Your task to perform on an android device: Set the phone to "Do not disturb". Image 0: 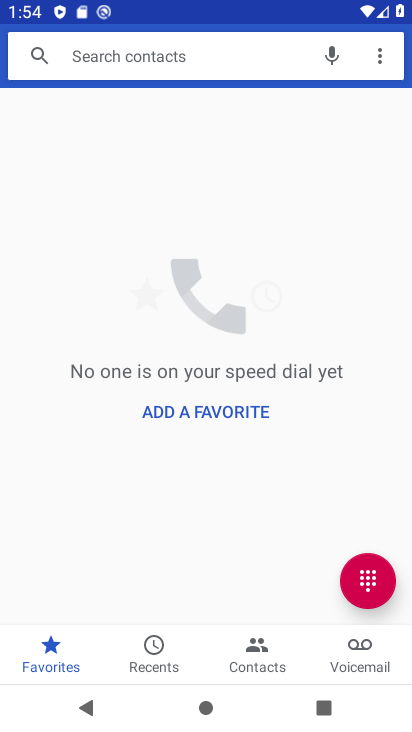
Step 0: press home button
Your task to perform on an android device: Set the phone to "Do not disturb". Image 1: 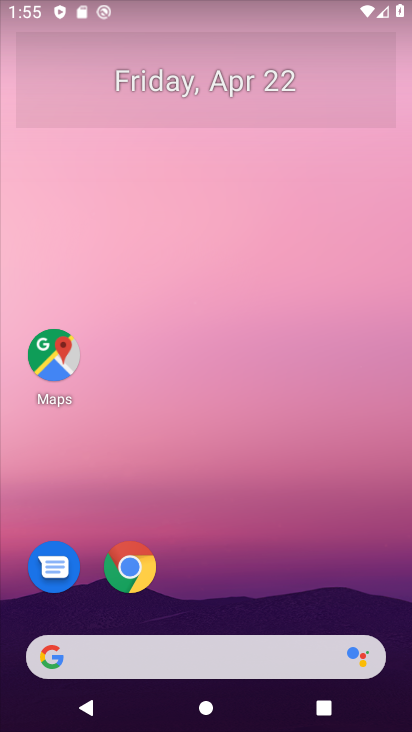
Step 1: drag from (291, 363) to (326, 49)
Your task to perform on an android device: Set the phone to "Do not disturb". Image 2: 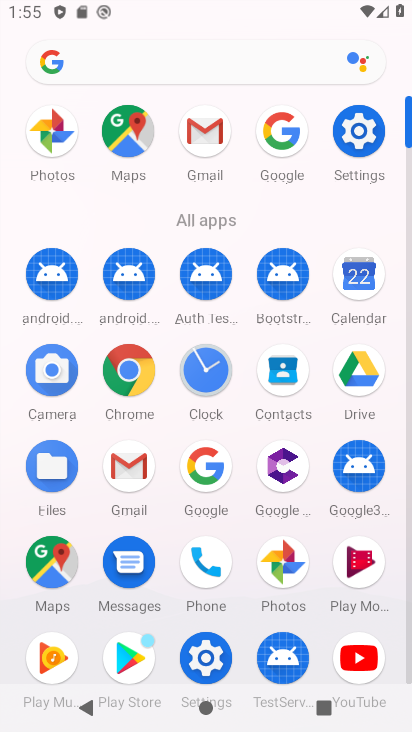
Step 2: click (210, 639)
Your task to perform on an android device: Set the phone to "Do not disturb". Image 3: 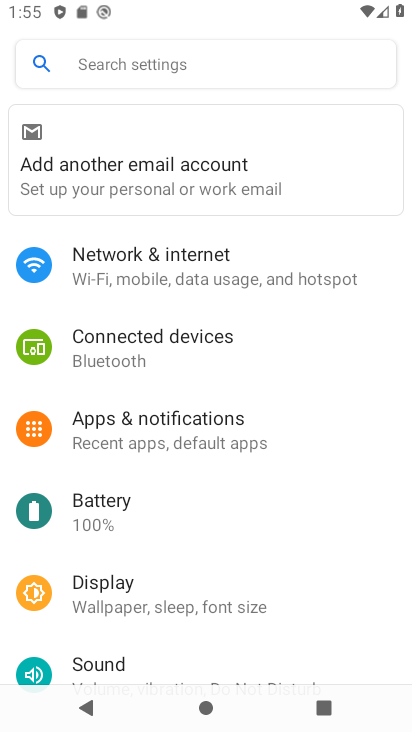
Step 3: drag from (246, 574) to (258, 247)
Your task to perform on an android device: Set the phone to "Do not disturb". Image 4: 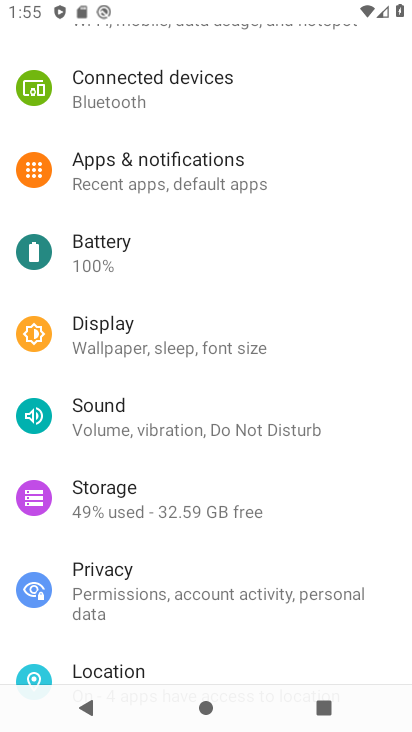
Step 4: click (222, 426)
Your task to perform on an android device: Set the phone to "Do not disturb". Image 5: 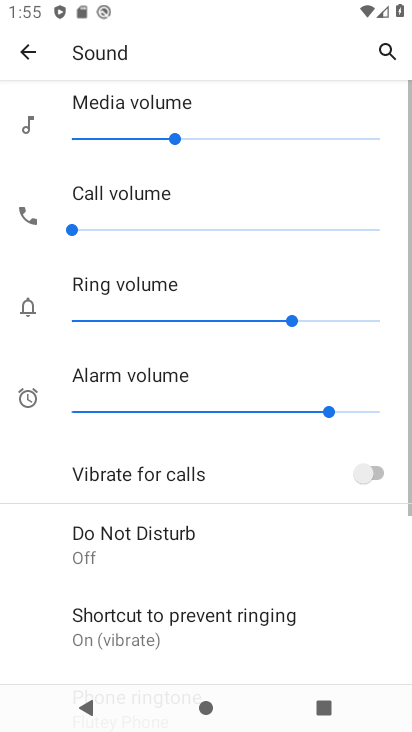
Step 5: drag from (252, 608) to (290, 102)
Your task to perform on an android device: Set the phone to "Do not disturb". Image 6: 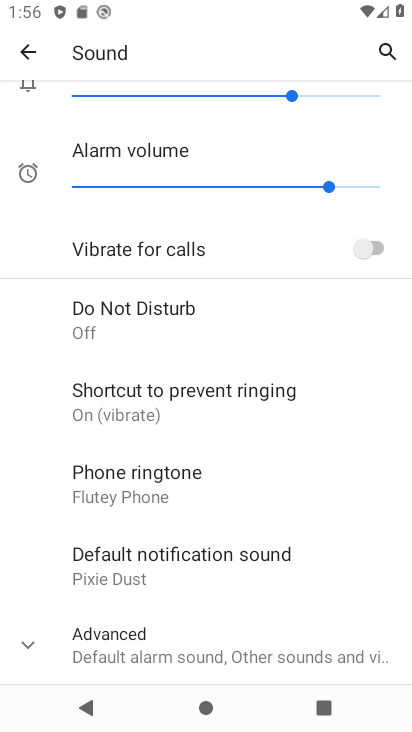
Step 6: click (192, 306)
Your task to perform on an android device: Set the phone to "Do not disturb". Image 7: 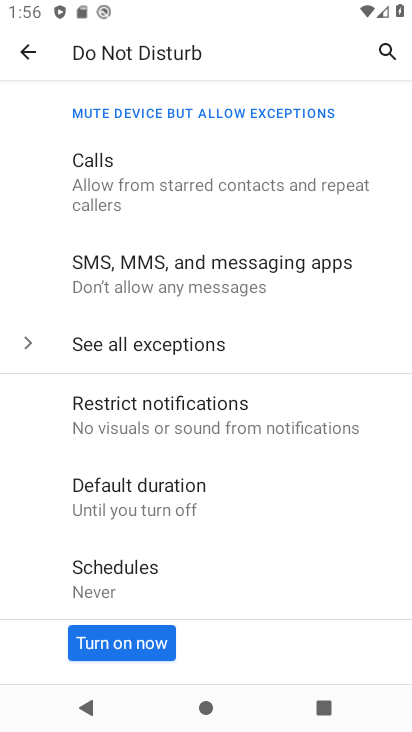
Step 7: click (143, 637)
Your task to perform on an android device: Set the phone to "Do not disturb". Image 8: 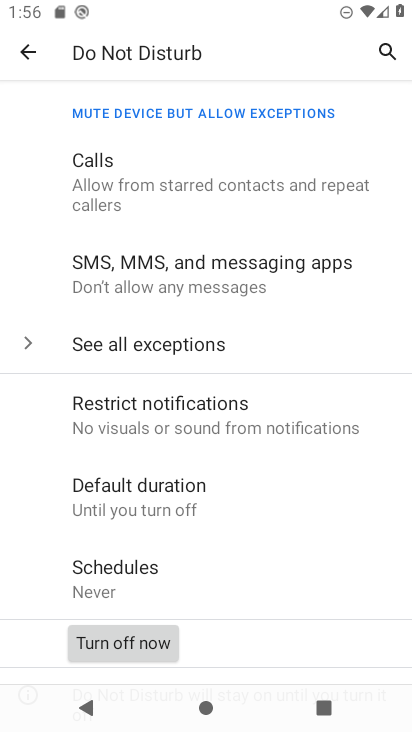
Step 8: task complete